Your task to perform on an android device: turn off location history Image 0: 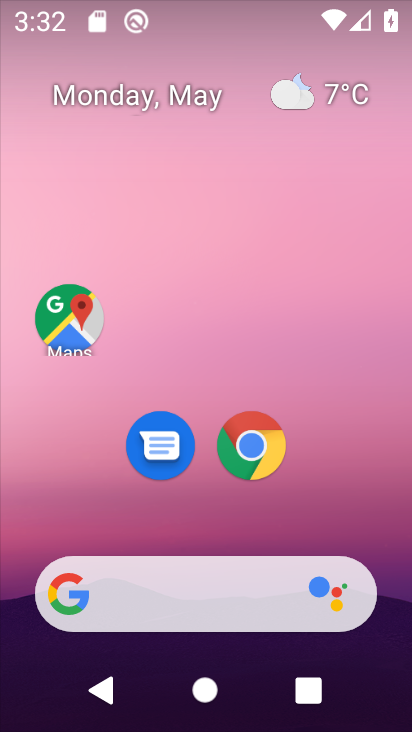
Step 0: drag from (312, 500) to (281, 25)
Your task to perform on an android device: turn off location history Image 1: 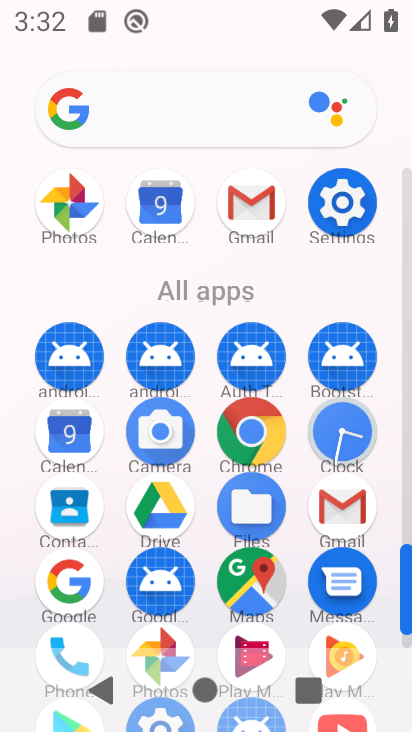
Step 1: drag from (191, 319) to (192, 266)
Your task to perform on an android device: turn off location history Image 2: 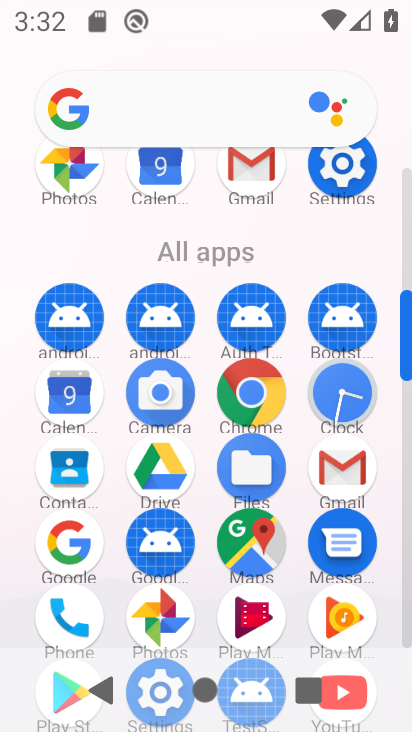
Step 2: click (357, 174)
Your task to perform on an android device: turn off location history Image 3: 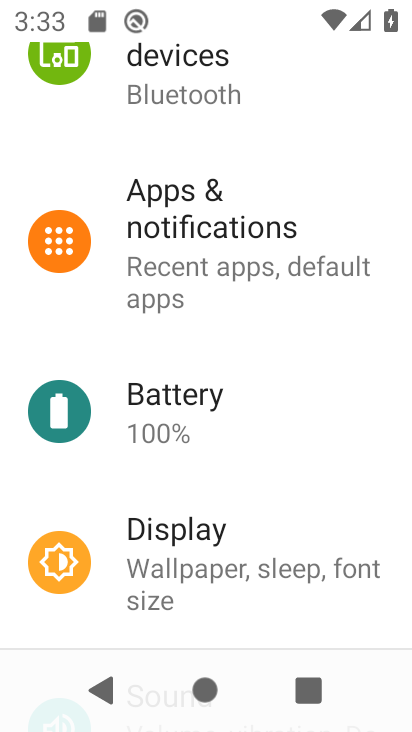
Step 3: drag from (202, 548) to (215, 189)
Your task to perform on an android device: turn off location history Image 4: 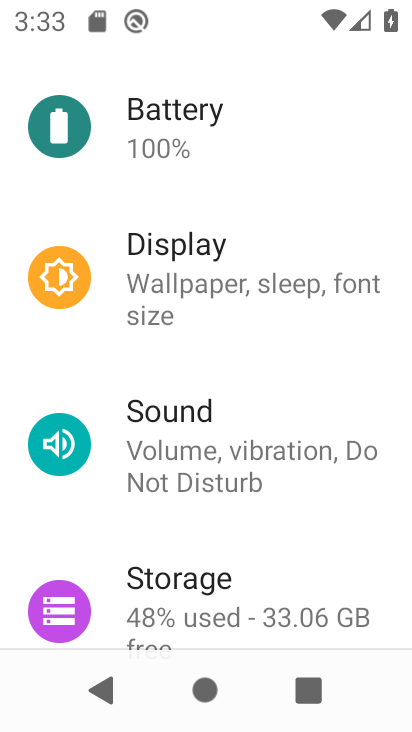
Step 4: drag from (205, 596) to (190, 179)
Your task to perform on an android device: turn off location history Image 5: 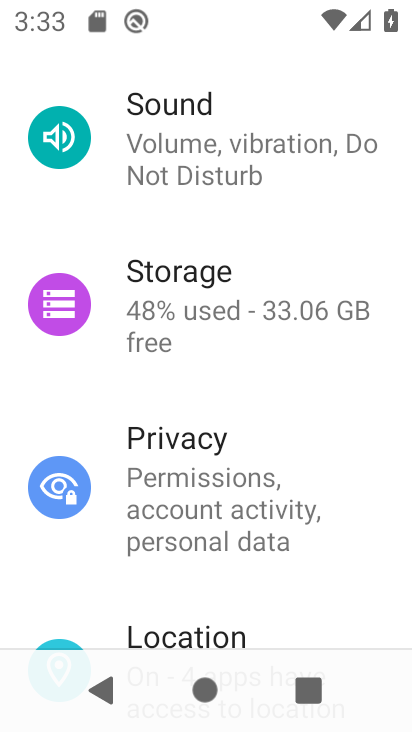
Step 5: click (153, 640)
Your task to perform on an android device: turn off location history Image 6: 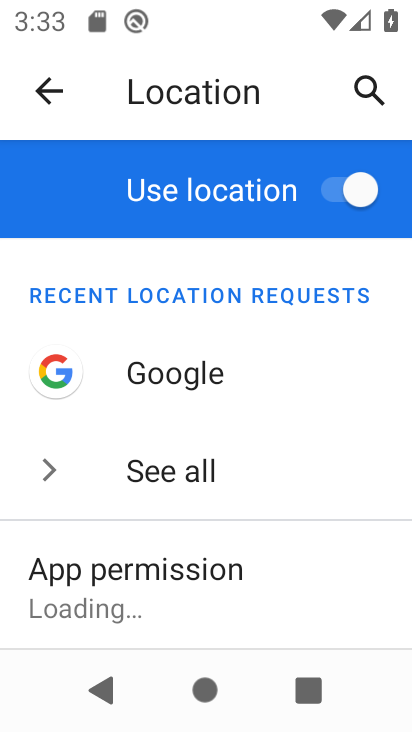
Step 6: drag from (187, 597) to (181, 199)
Your task to perform on an android device: turn off location history Image 7: 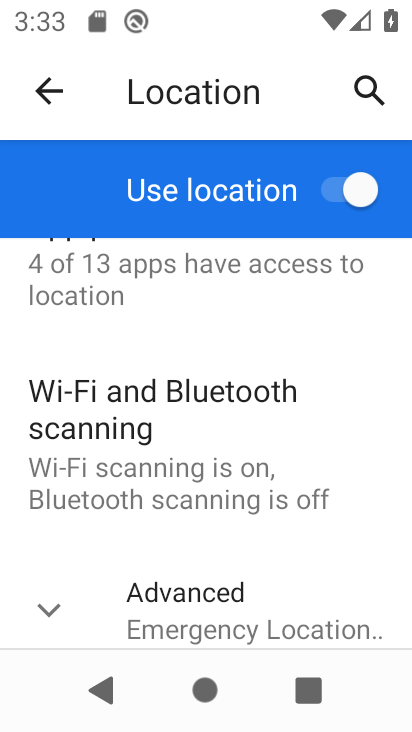
Step 7: click (191, 597)
Your task to perform on an android device: turn off location history Image 8: 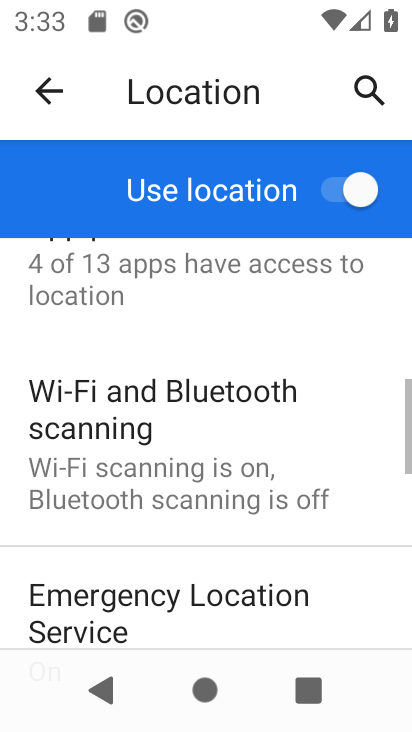
Step 8: drag from (195, 592) to (193, 202)
Your task to perform on an android device: turn off location history Image 9: 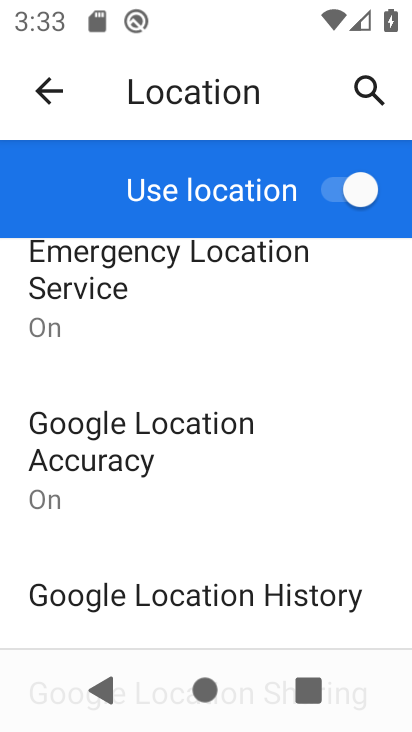
Step 9: click (173, 590)
Your task to perform on an android device: turn off location history Image 10: 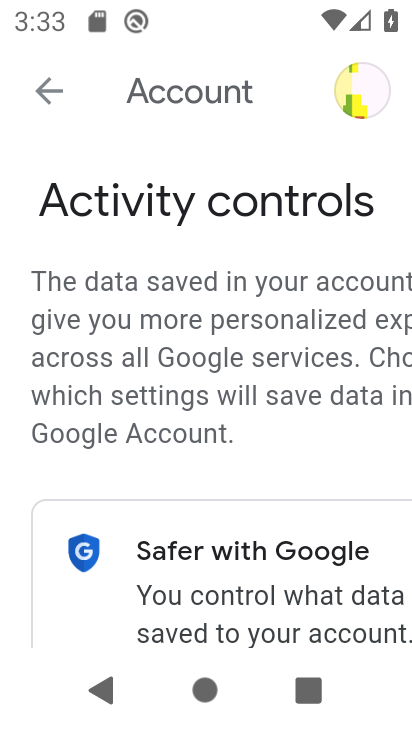
Step 10: drag from (210, 573) to (203, 36)
Your task to perform on an android device: turn off location history Image 11: 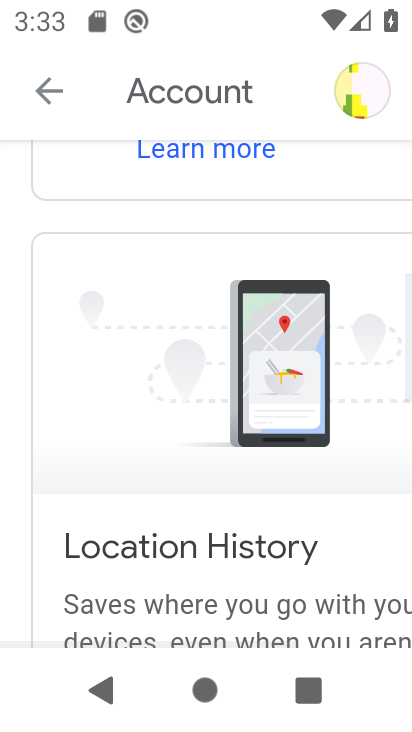
Step 11: drag from (199, 560) to (181, 110)
Your task to perform on an android device: turn off location history Image 12: 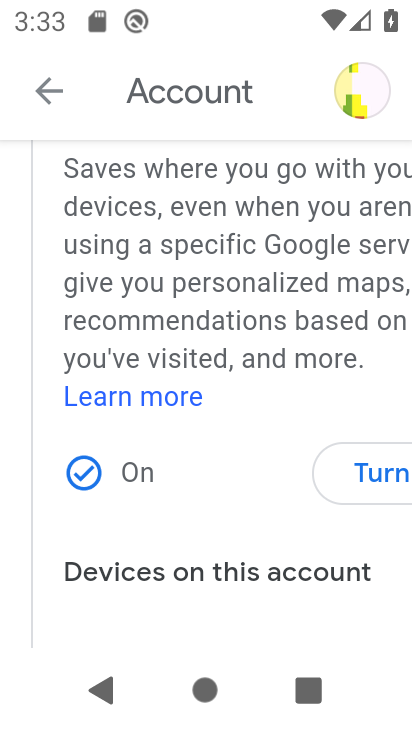
Step 12: click (345, 473)
Your task to perform on an android device: turn off location history Image 13: 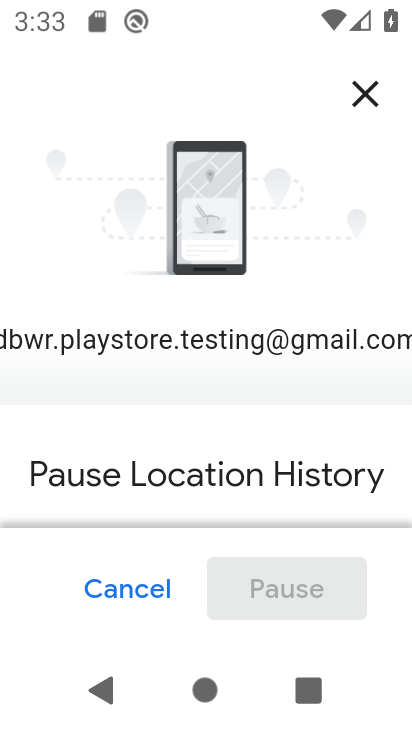
Step 13: drag from (243, 511) to (180, 1)
Your task to perform on an android device: turn off location history Image 14: 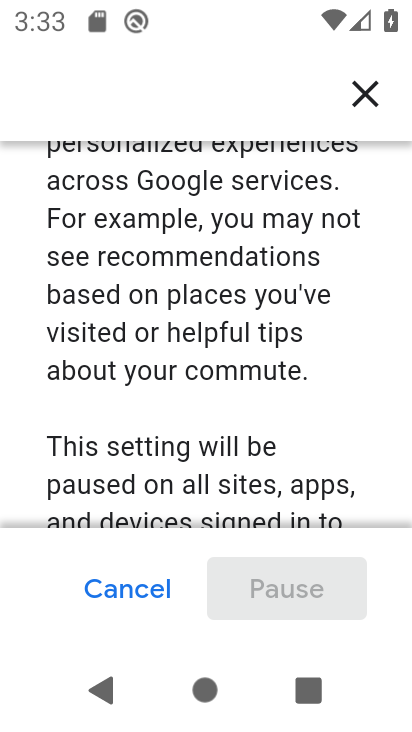
Step 14: drag from (204, 493) to (171, 160)
Your task to perform on an android device: turn off location history Image 15: 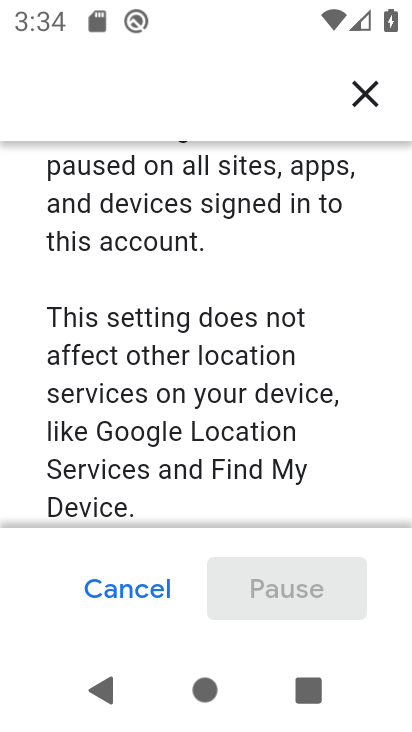
Step 15: drag from (203, 494) to (190, 27)
Your task to perform on an android device: turn off location history Image 16: 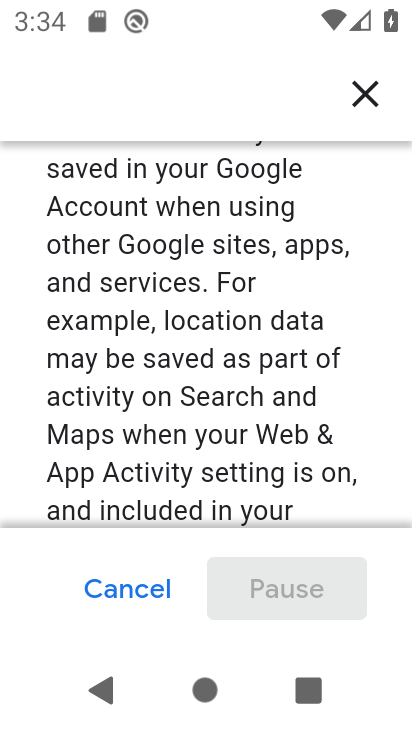
Step 16: drag from (227, 486) to (184, 67)
Your task to perform on an android device: turn off location history Image 17: 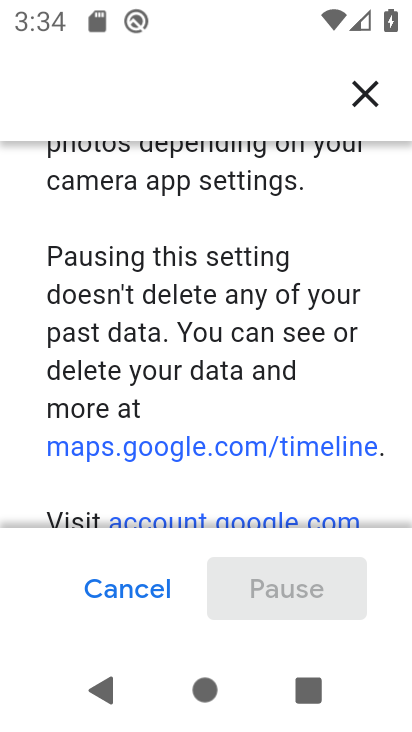
Step 17: drag from (240, 482) to (195, 137)
Your task to perform on an android device: turn off location history Image 18: 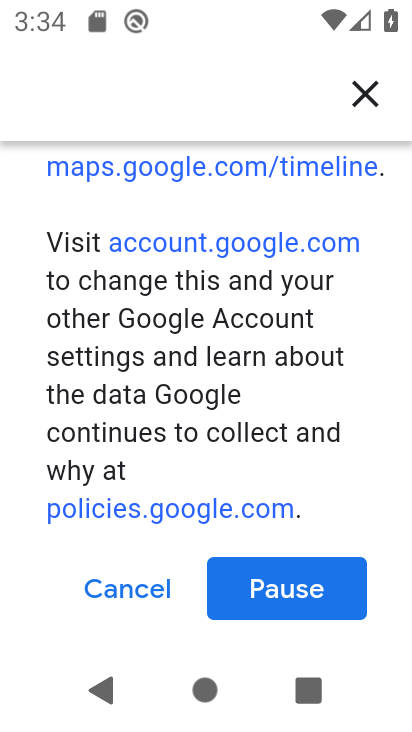
Step 18: click (276, 571)
Your task to perform on an android device: turn off location history Image 19: 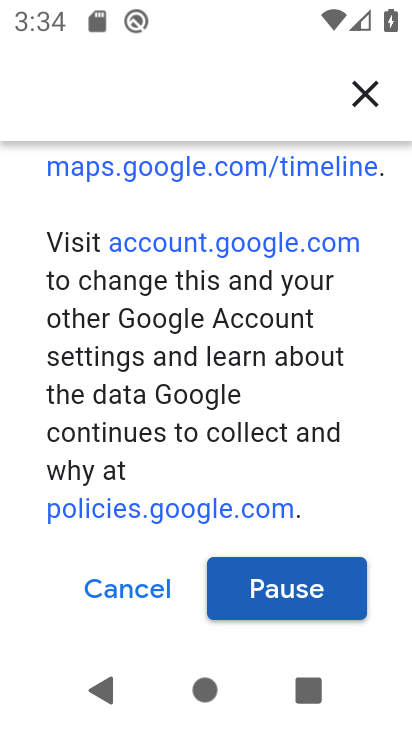
Step 19: click (245, 574)
Your task to perform on an android device: turn off location history Image 20: 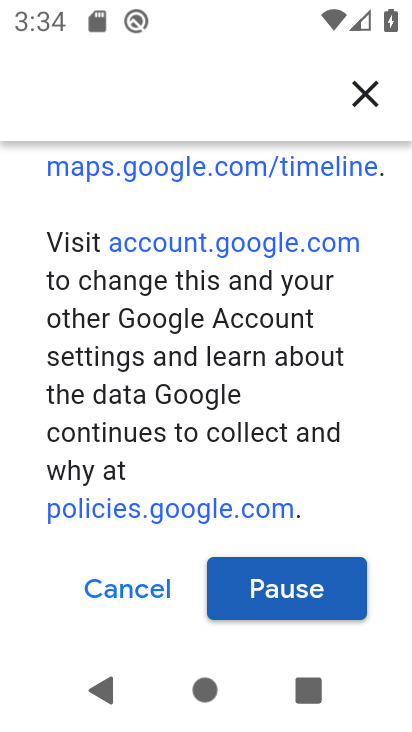
Step 20: click (266, 597)
Your task to perform on an android device: turn off location history Image 21: 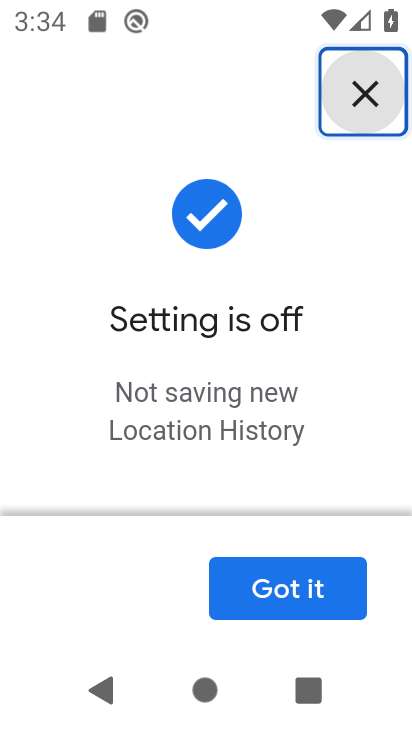
Step 21: click (247, 599)
Your task to perform on an android device: turn off location history Image 22: 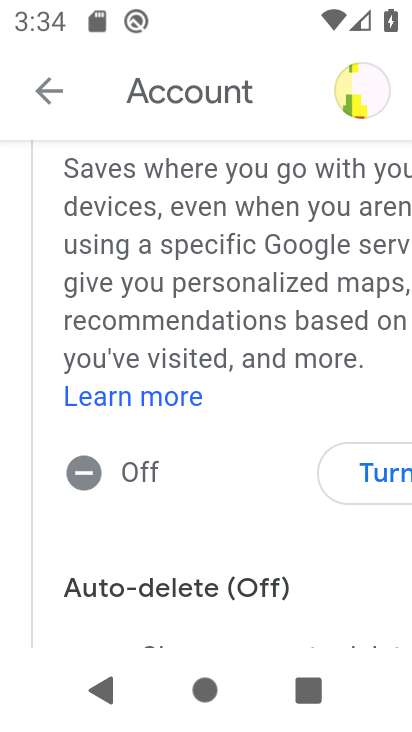
Step 22: task complete